Your task to perform on an android device: check google app version Image 0: 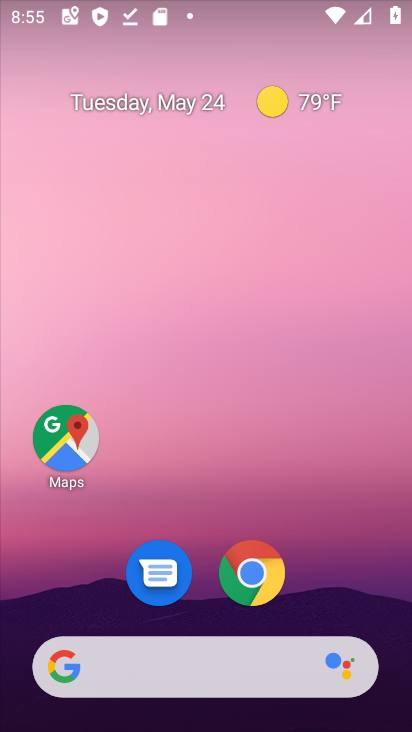
Step 0: drag from (295, 696) to (146, 50)
Your task to perform on an android device: check google app version Image 1: 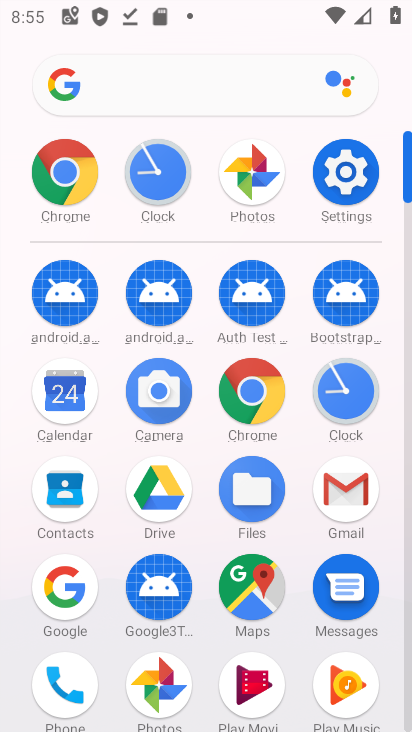
Step 1: drag from (181, 331) to (156, 193)
Your task to perform on an android device: check google app version Image 2: 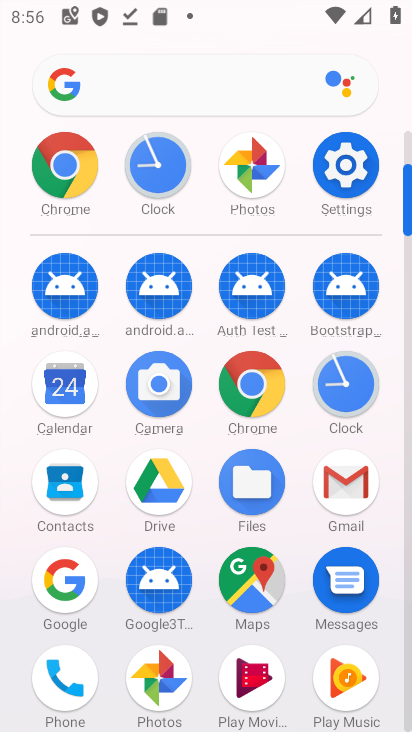
Step 2: click (62, 585)
Your task to perform on an android device: check google app version Image 3: 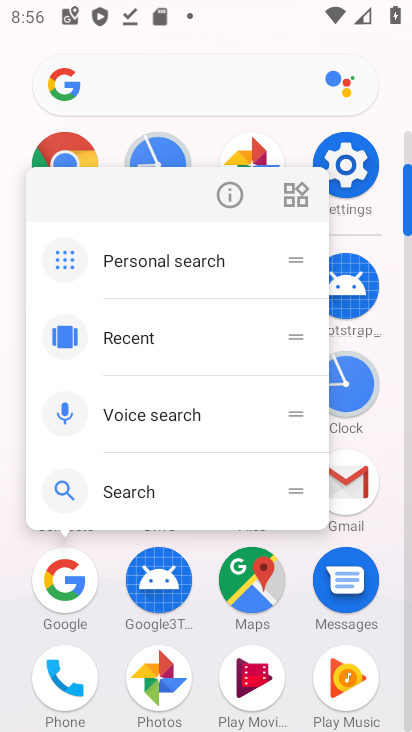
Step 3: click (68, 573)
Your task to perform on an android device: check google app version Image 4: 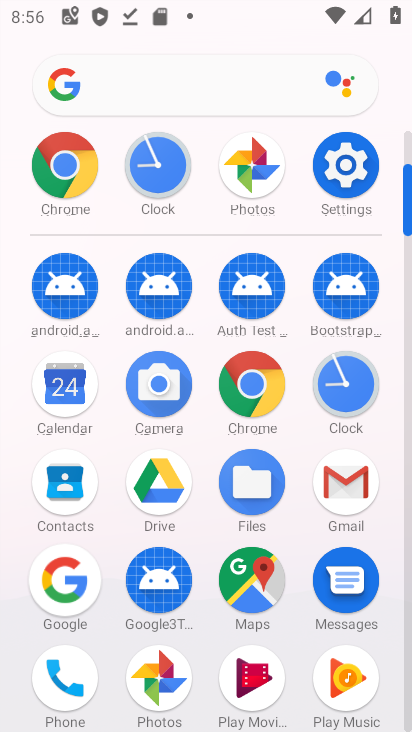
Step 4: click (68, 573)
Your task to perform on an android device: check google app version Image 5: 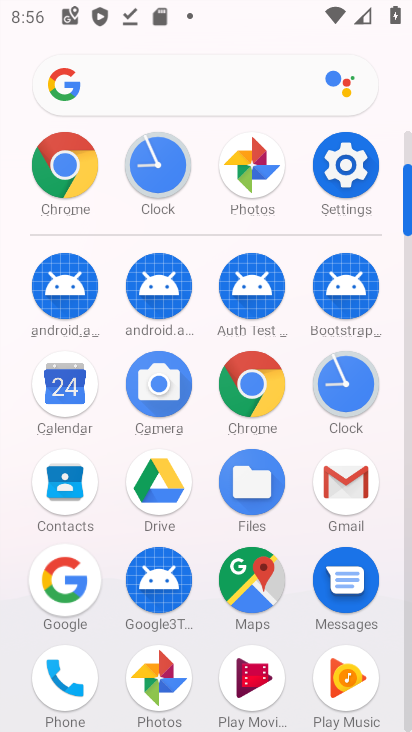
Step 5: click (68, 573)
Your task to perform on an android device: check google app version Image 6: 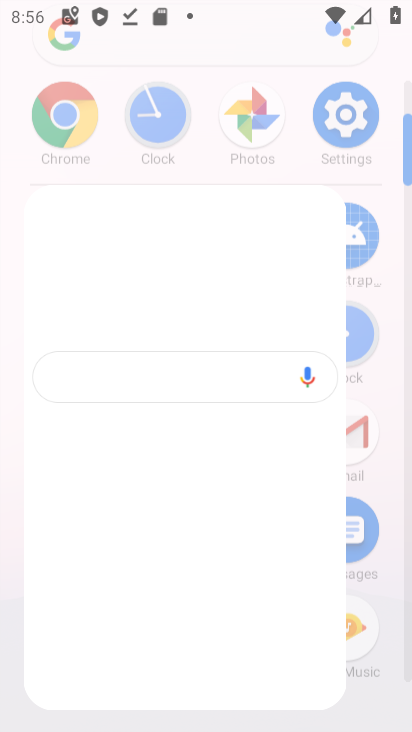
Step 6: click (68, 573)
Your task to perform on an android device: check google app version Image 7: 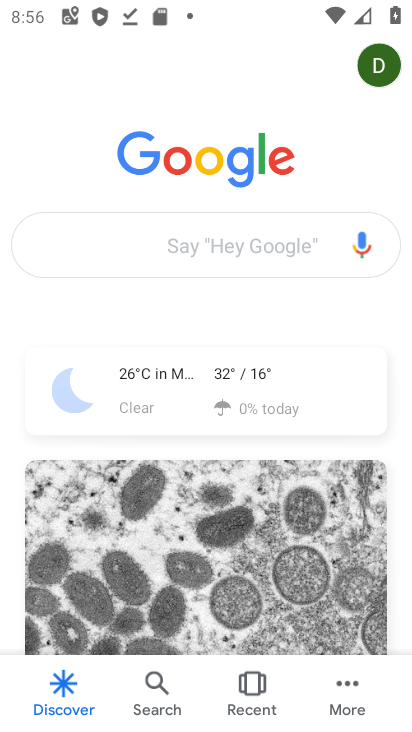
Step 7: click (353, 694)
Your task to perform on an android device: check google app version Image 8: 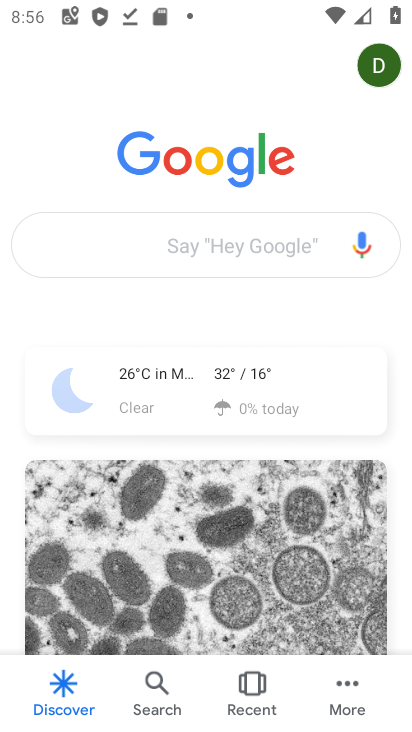
Step 8: click (353, 694)
Your task to perform on an android device: check google app version Image 9: 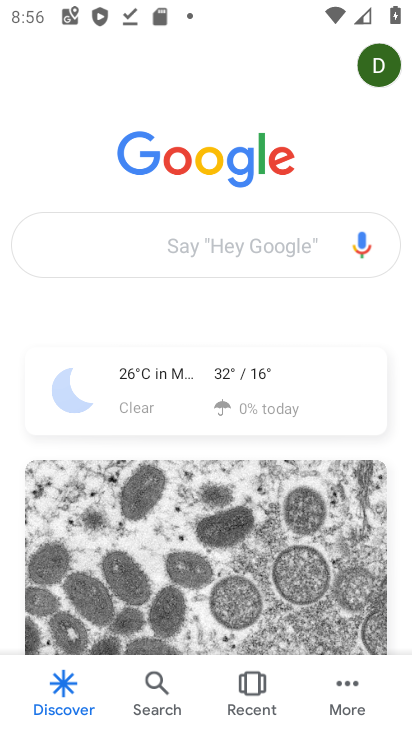
Step 9: click (353, 694)
Your task to perform on an android device: check google app version Image 10: 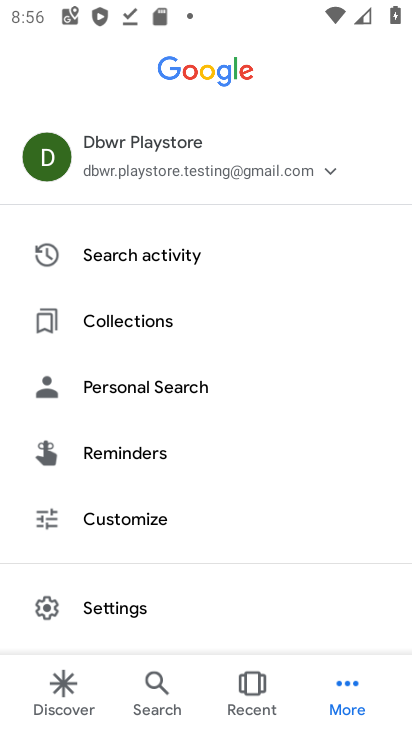
Step 10: click (353, 694)
Your task to perform on an android device: check google app version Image 11: 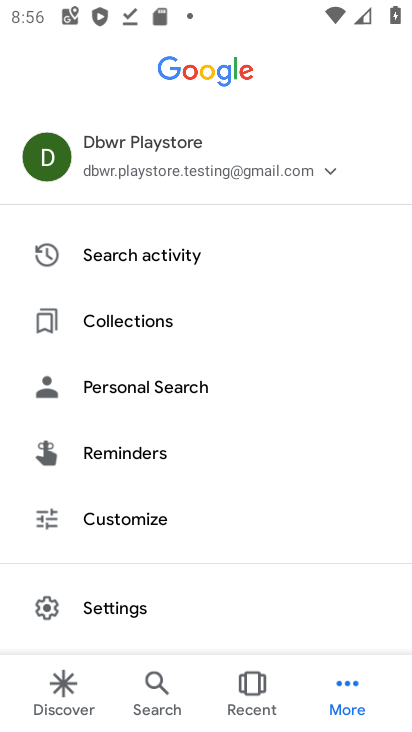
Step 11: click (125, 603)
Your task to perform on an android device: check google app version Image 12: 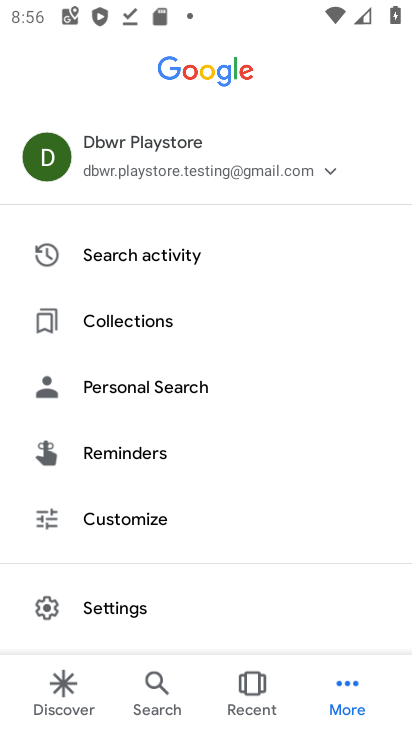
Step 12: click (125, 603)
Your task to perform on an android device: check google app version Image 13: 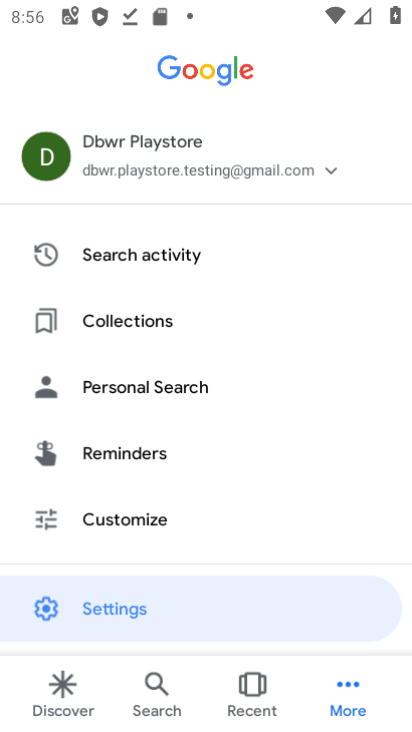
Step 13: click (128, 602)
Your task to perform on an android device: check google app version Image 14: 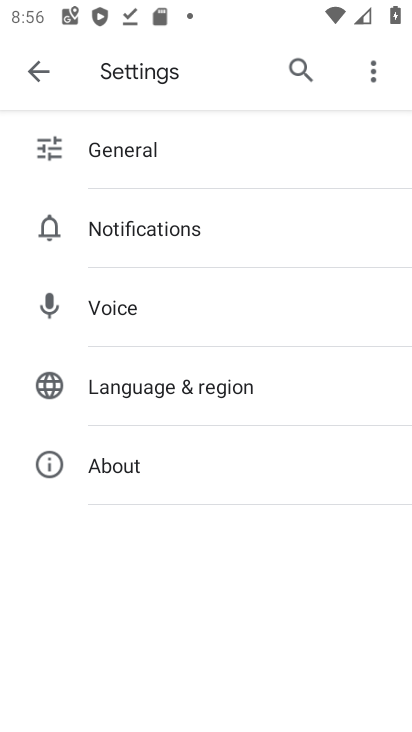
Step 14: click (125, 471)
Your task to perform on an android device: check google app version Image 15: 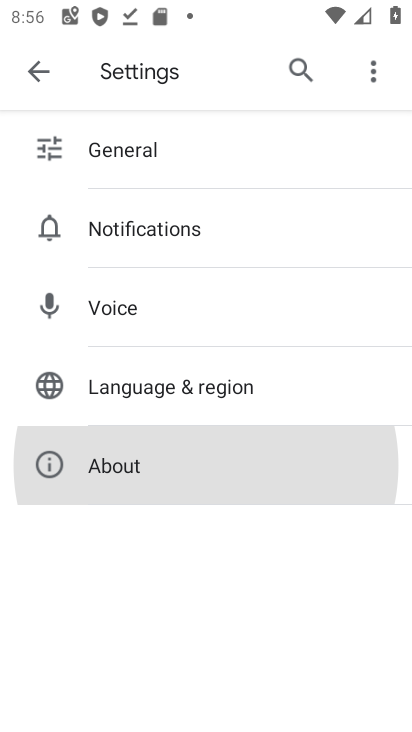
Step 15: click (127, 466)
Your task to perform on an android device: check google app version Image 16: 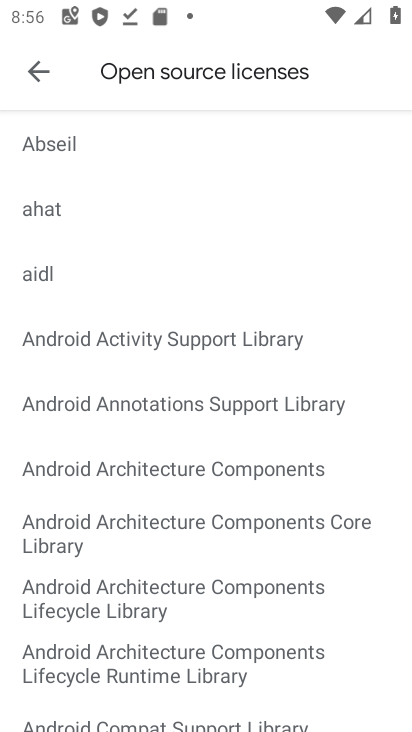
Step 16: click (54, 74)
Your task to perform on an android device: check google app version Image 17: 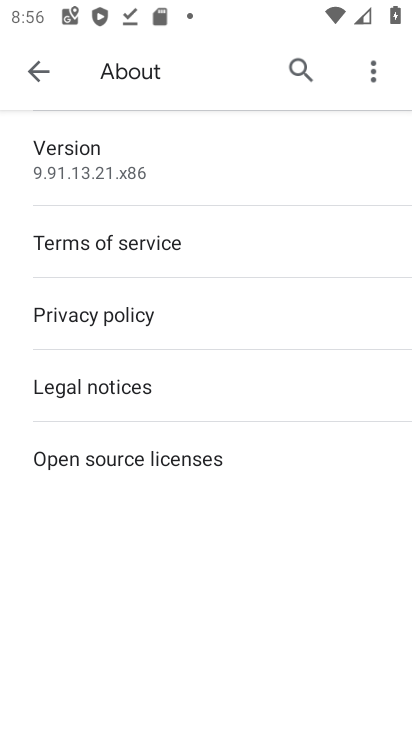
Step 17: task complete